Your task to perform on an android device: Open sound settings Image 0: 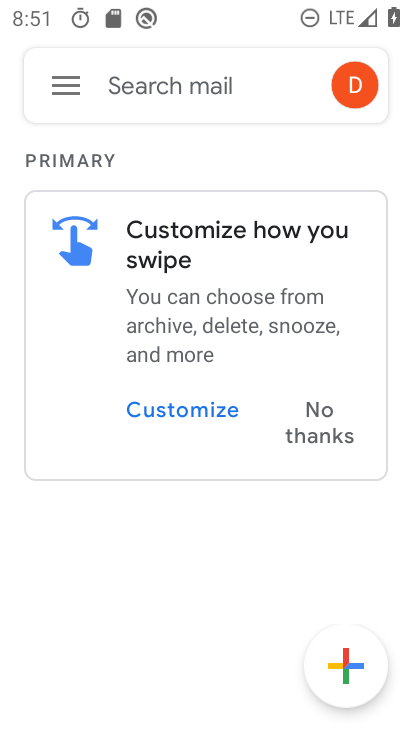
Step 0: press home button
Your task to perform on an android device: Open sound settings Image 1: 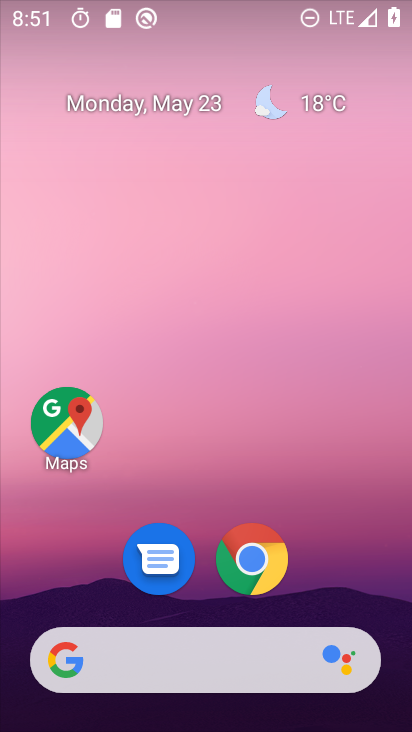
Step 1: drag from (398, 628) to (233, 0)
Your task to perform on an android device: Open sound settings Image 2: 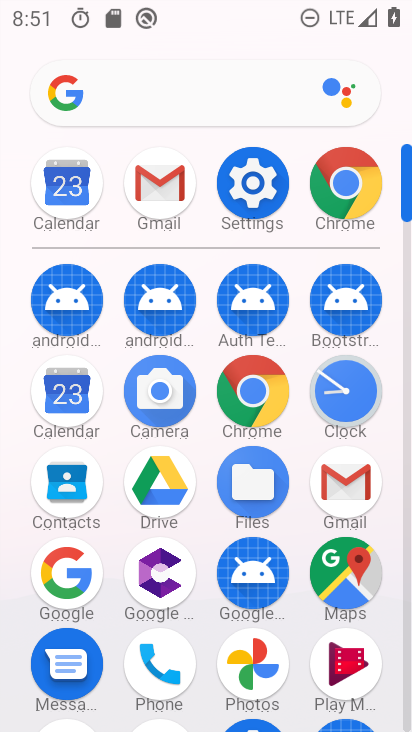
Step 2: click (276, 195)
Your task to perform on an android device: Open sound settings Image 3: 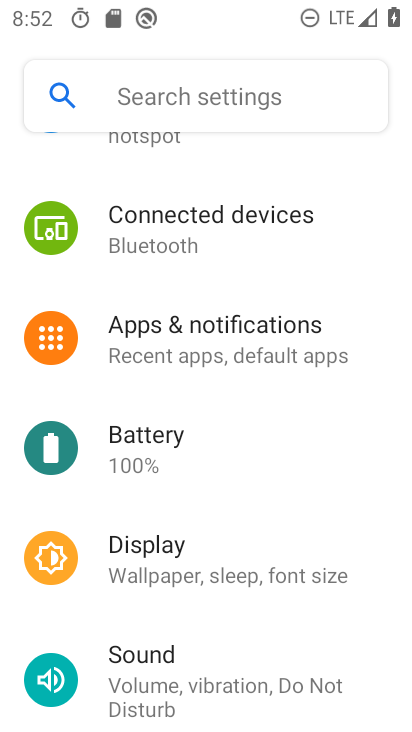
Step 3: click (156, 662)
Your task to perform on an android device: Open sound settings Image 4: 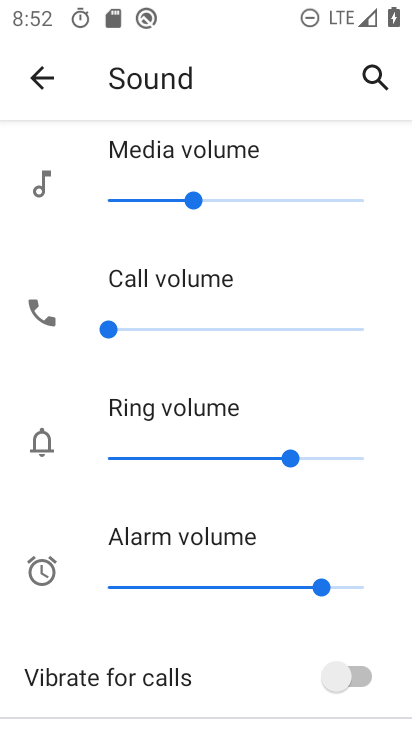
Step 4: task complete